Your task to perform on an android device: turn pop-ups on in chrome Image 0: 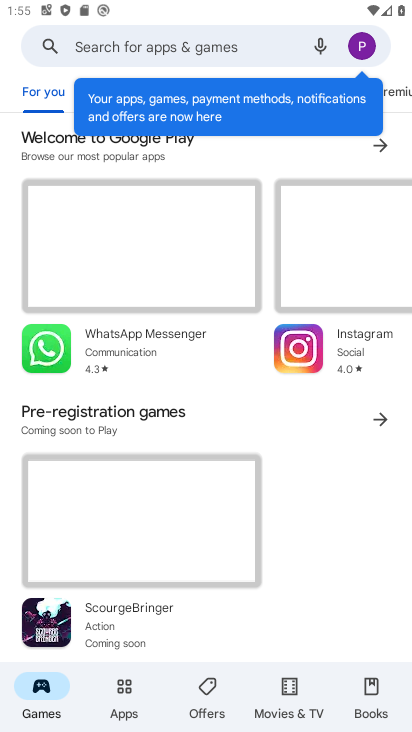
Step 0: press home button
Your task to perform on an android device: turn pop-ups on in chrome Image 1: 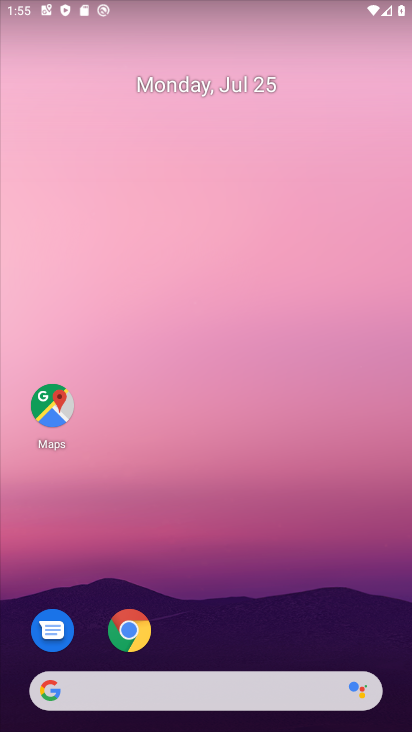
Step 1: drag from (281, 632) to (271, 224)
Your task to perform on an android device: turn pop-ups on in chrome Image 2: 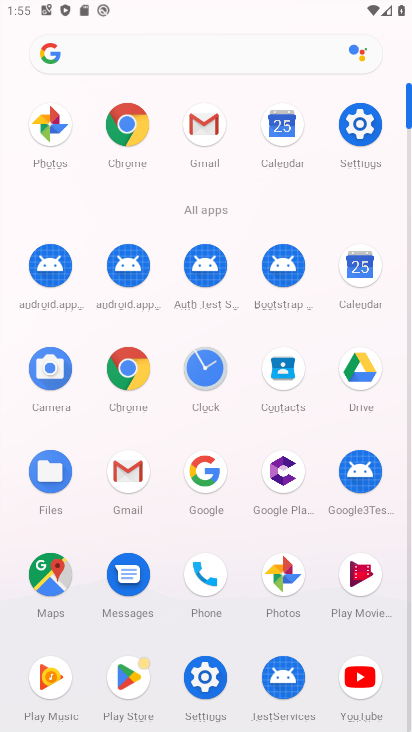
Step 2: click (129, 140)
Your task to perform on an android device: turn pop-ups on in chrome Image 3: 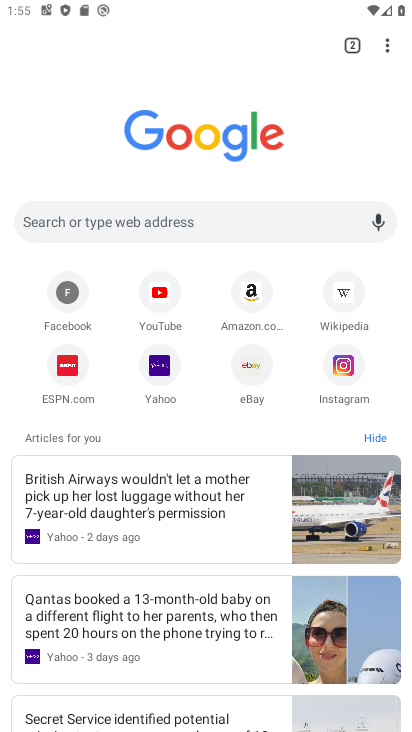
Step 3: click (387, 47)
Your task to perform on an android device: turn pop-ups on in chrome Image 4: 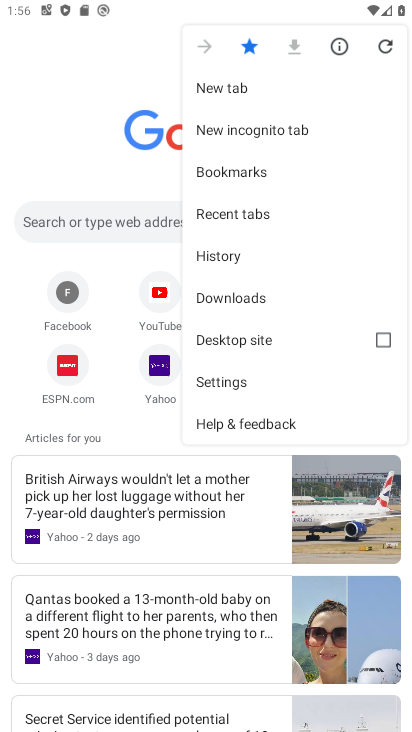
Step 4: click (256, 390)
Your task to perform on an android device: turn pop-ups on in chrome Image 5: 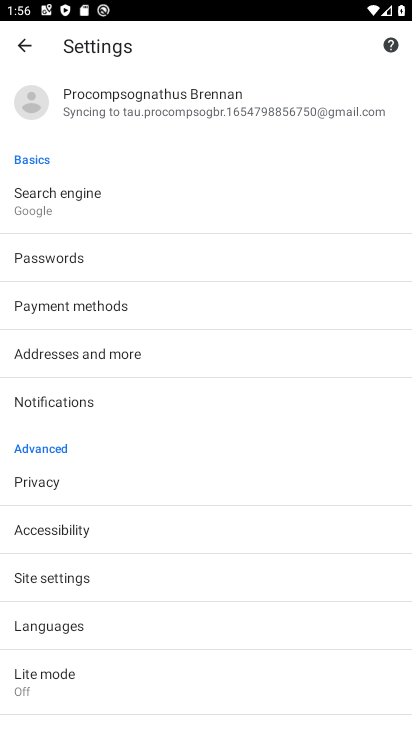
Step 5: click (124, 582)
Your task to perform on an android device: turn pop-ups on in chrome Image 6: 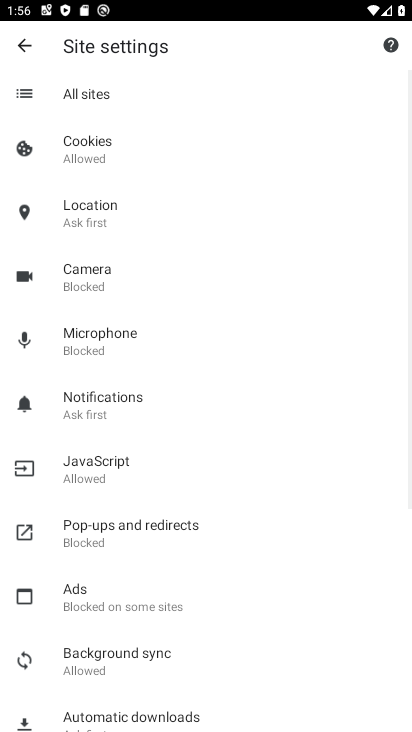
Step 6: click (140, 534)
Your task to perform on an android device: turn pop-ups on in chrome Image 7: 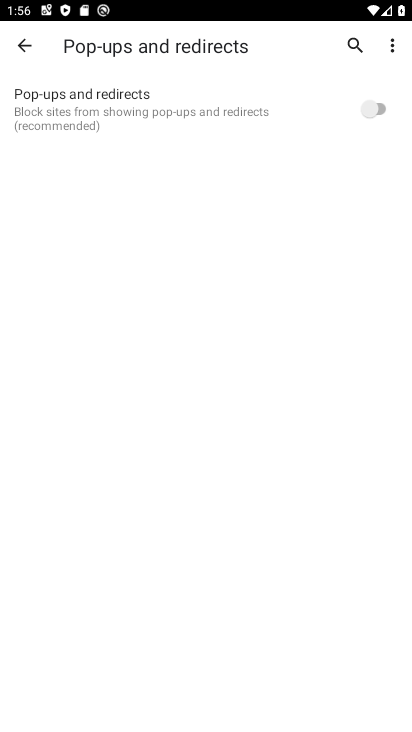
Step 7: click (384, 113)
Your task to perform on an android device: turn pop-ups on in chrome Image 8: 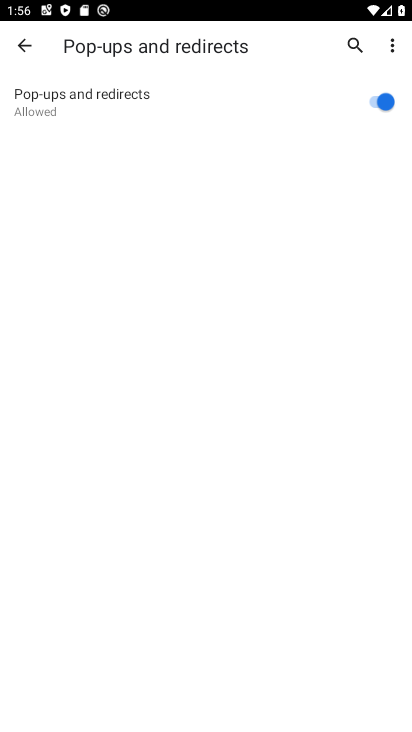
Step 8: task complete